Your task to perform on an android device: turn on translation in the chrome app Image 0: 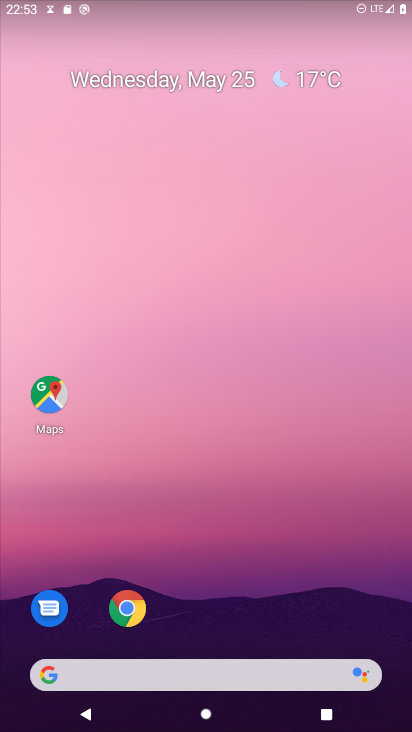
Step 0: click (139, 606)
Your task to perform on an android device: turn on translation in the chrome app Image 1: 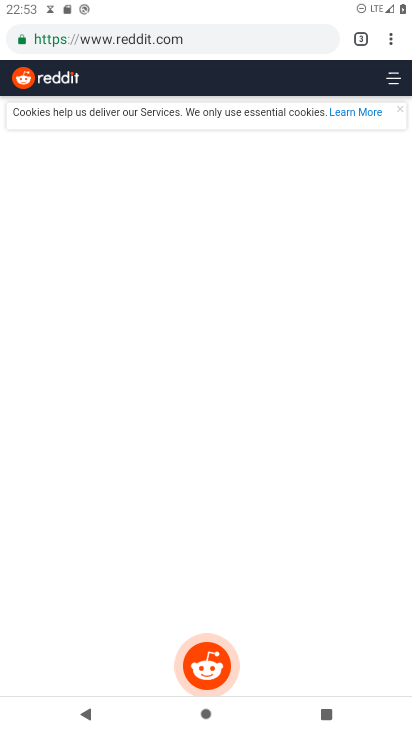
Step 1: click (391, 34)
Your task to perform on an android device: turn on translation in the chrome app Image 2: 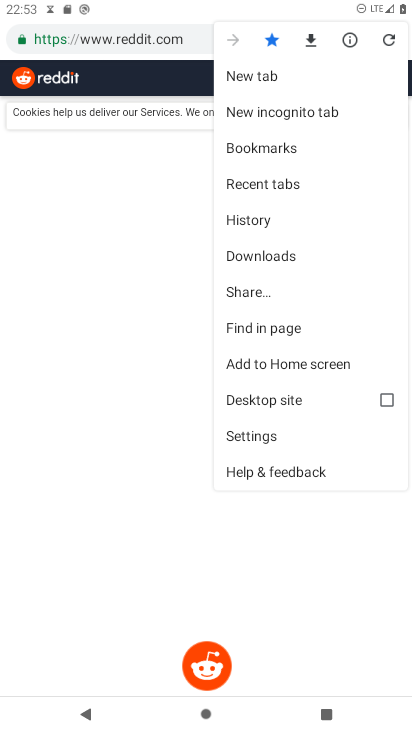
Step 2: click (294, 429)
Your task to perform on an android device: turn on translation in the chrome app Image 3: 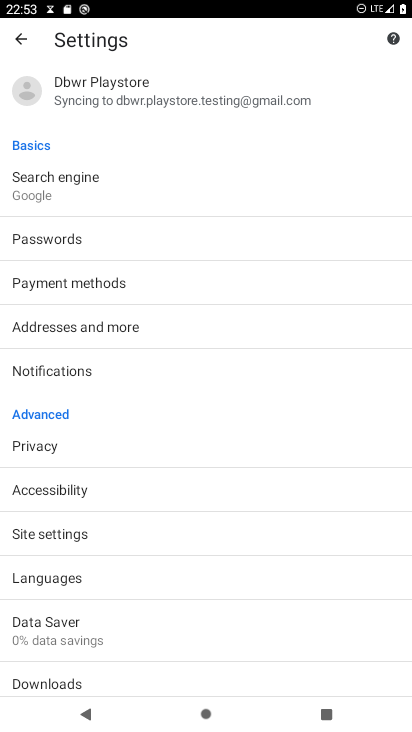
Step 3: click (128, 581)
Your task to perform on an android device: turn on translation in the chrome app Image 4: 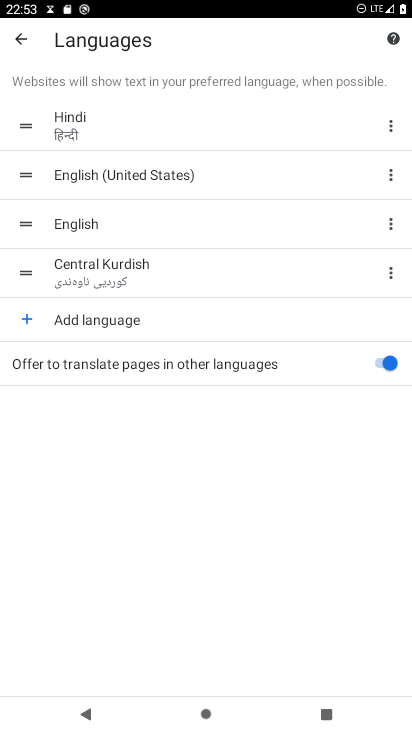
Step 4: task complete